Your task to perform on an android device: Open Google Maps Image 0: 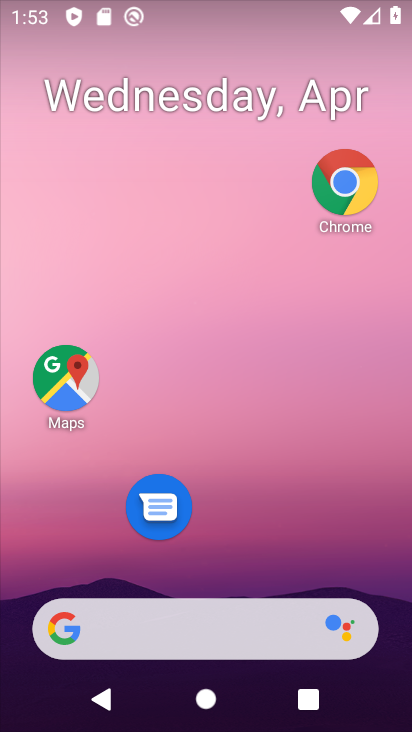
Step 0: click (49, 390)
Your task to perform on an android device: Open Google Maps Image 1: 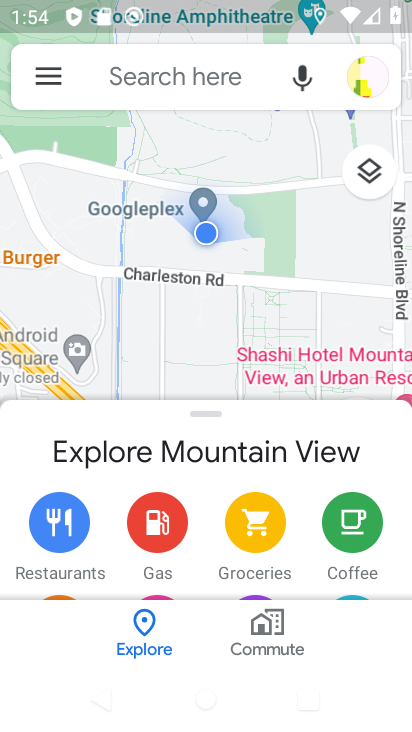
Step 1: task complete